Your task to perform on an android device: turn pop-ups on in chrome Image 0: 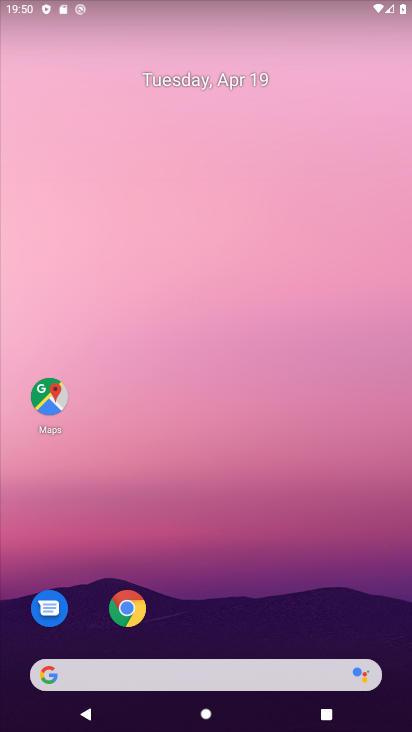
Step 0: click (129, 615)
Your task to perform on an android device: turn pop-ups on in chrome Image 1: 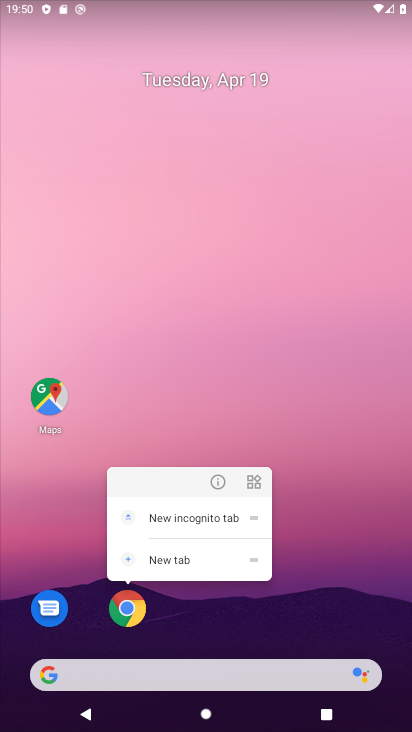
Step 1: click (129, 615)
Your task to perform on an android device: turn pop-ups on in chrome Image 2: 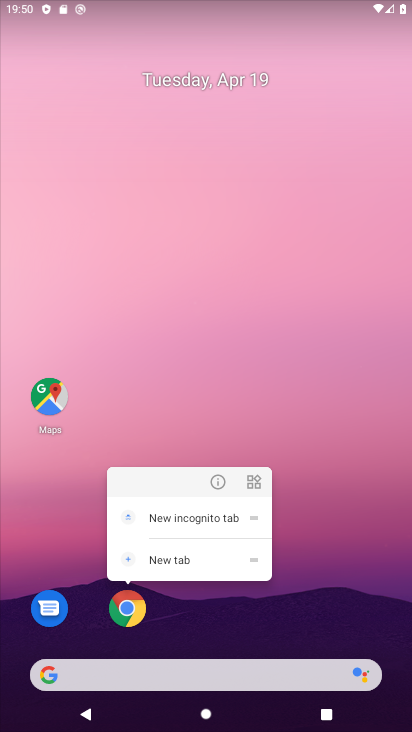
Step 2: click (129, 612)
Your task to perform on an android device: turn pop-ups on in chrome Image 3: 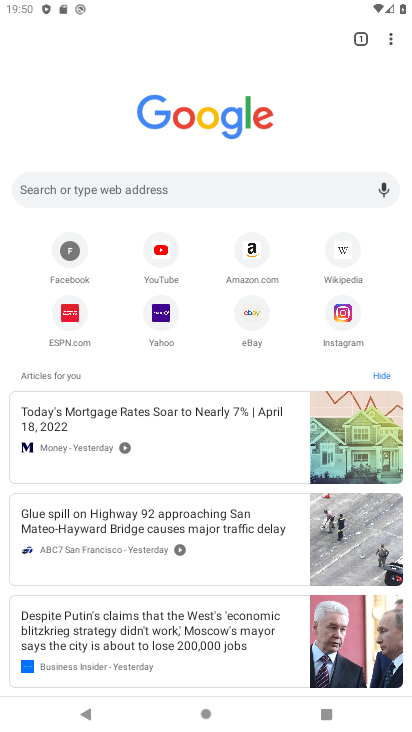
Step 3: click (387, 48)
Your task to perform on an android device: turn pop-ups on in chrome Image 4: 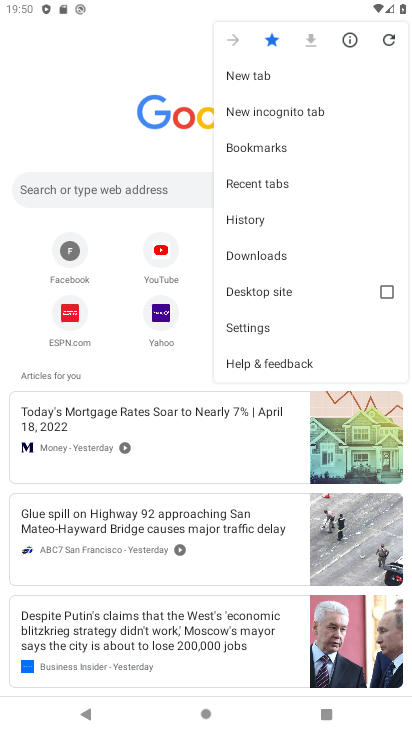
Step 4: click (246, 323)
Your task to perform on an android device: turn pop-ups on in chrome Image 5: 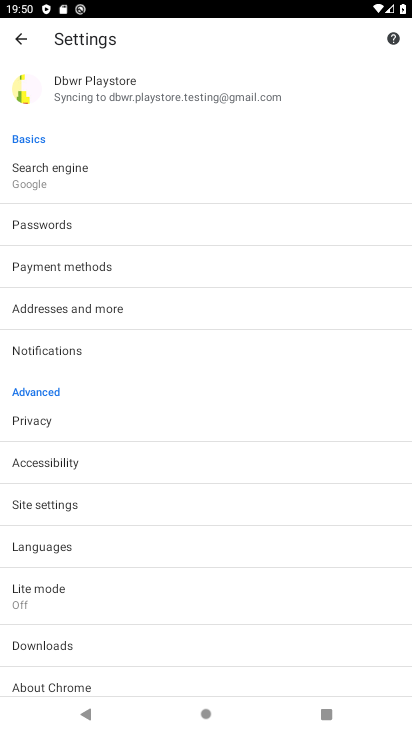
Step 5: click (153, 512)
Your task to perform on an android device: turn pop-ups on in chrome Image 6: 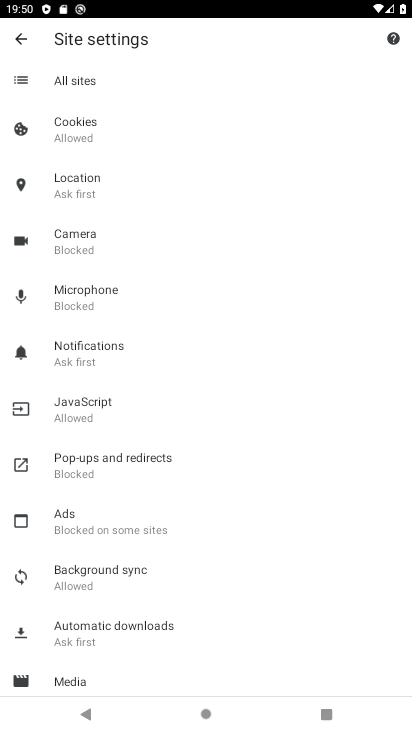
Step 6: drag from (153, 589) to (151, 500)
Your task to perform on an android device: turn pop-ups on in chrome Image 7: 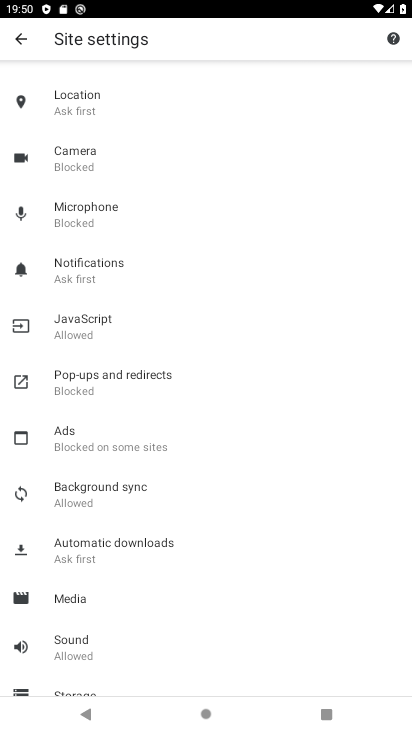
Step 7: click (120, 405)
Your task to perform on an android device: turn pop-ups on in chrome Image 8: 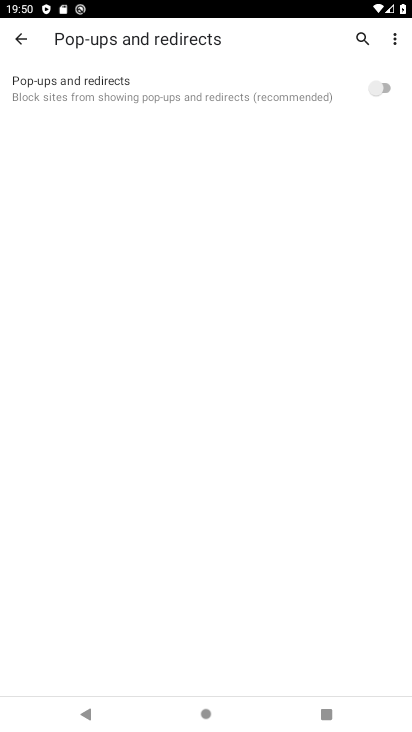
Step 8: click (378, 91)
Your task to perform on an android device: turn pop-ups on in chrome Image 9: 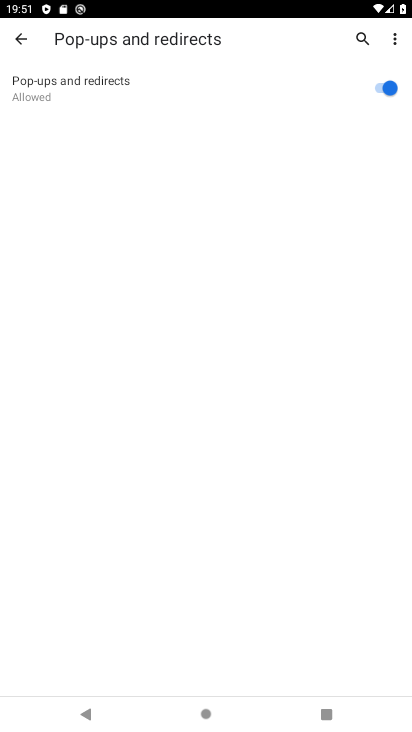
Step 9: task complete